Your task to perform on an android device: toggle data saver in the chrome app Image 0: 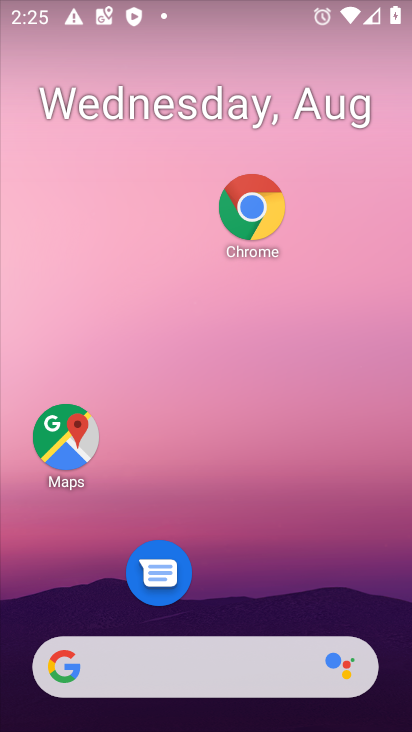
Step 0: drag from (225, 602) to (322, 123)
Your task to perform on an android device: toggle data saver in the chrome app Image 1: 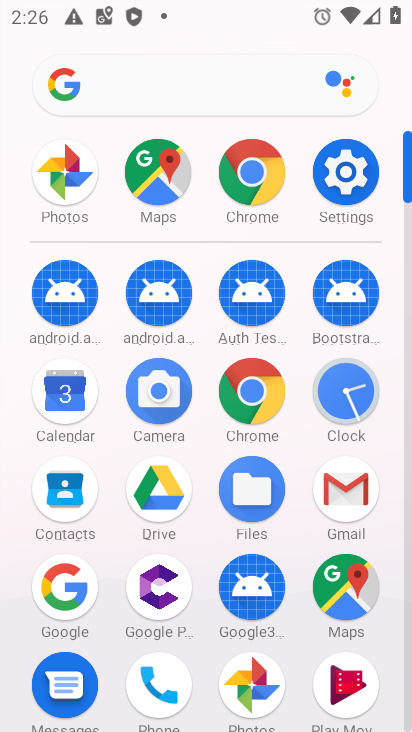
Step 1: click (248, 182)
Your task to perform on an android device: toggle data saver in the chrome app Image 2: 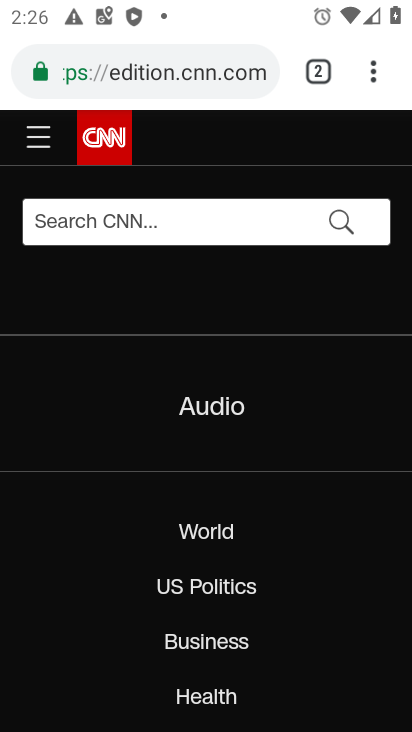
Step 2: click (366, 68)
Your task to perform on an android device: toggle data saver in the chrome app Image 3: 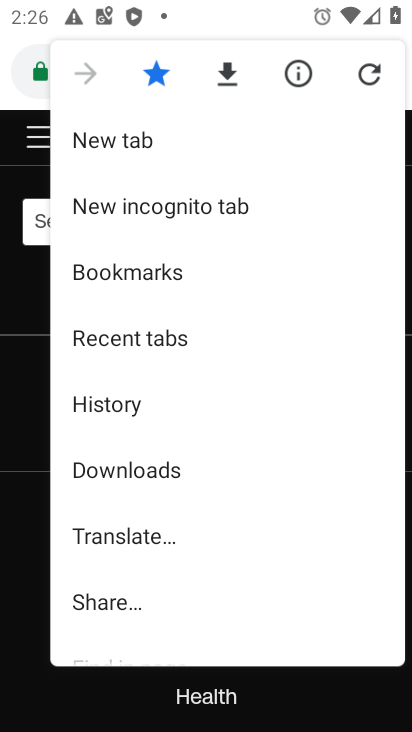
Step 3: drag from (139, 531) to (145, 209)
Your task to perform on an android device: toggle data saver in the chrome app Image 4: 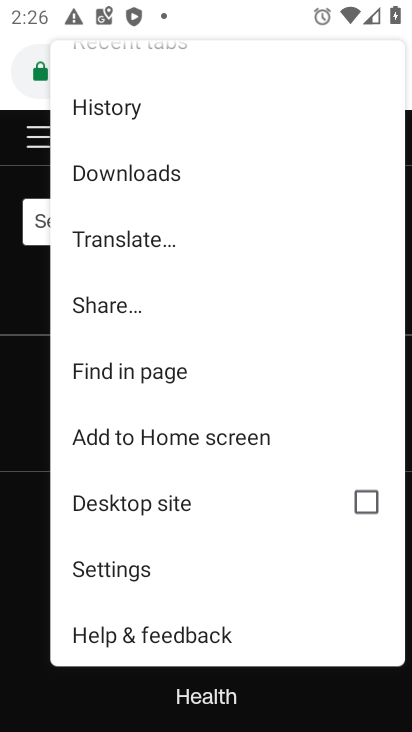
Step 4: click (162, 561)
Your task to perform on an android device: toggle data saver in the chrome app Image 5: 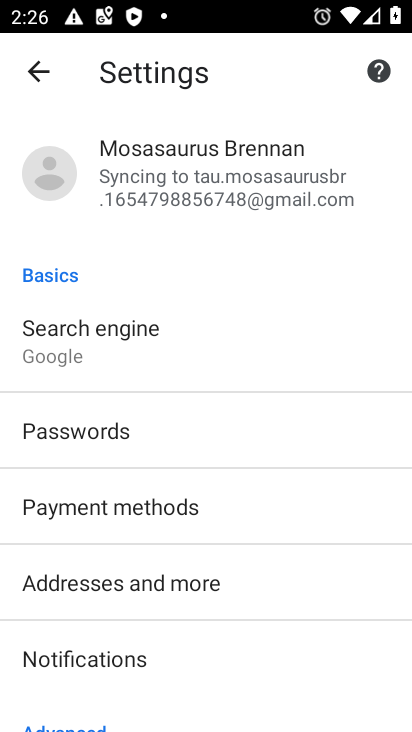
Step 5: drag from (175, 594) to (175, 314)
Your task to perform on an android device: toggle data saver in the chrome app Image 6: 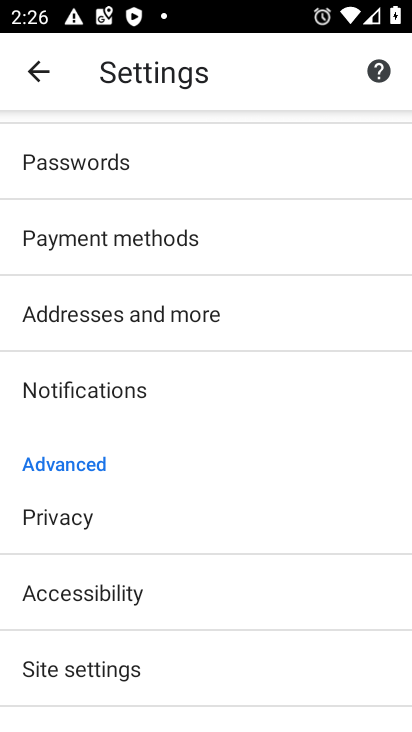
Step 6: drag from (225, 485) to (202, 296)
Your task to perform on an android device: toggle data saver in the chrome app Image 7: 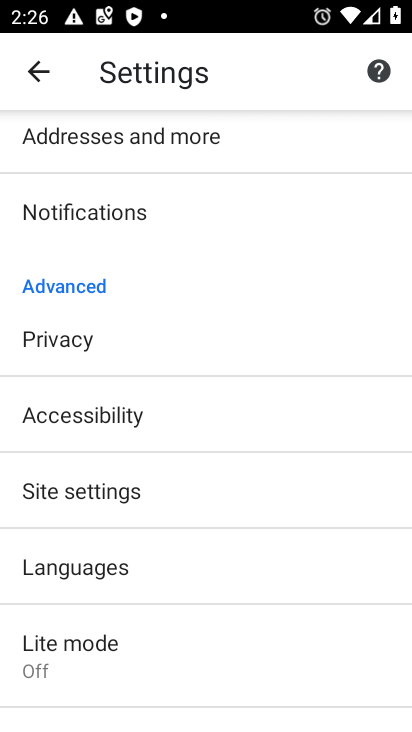
Step 7: drag from (176, 596) to (181, 338)
Your task to perform on an android device: toggle data saver in the chrome app Image 8: 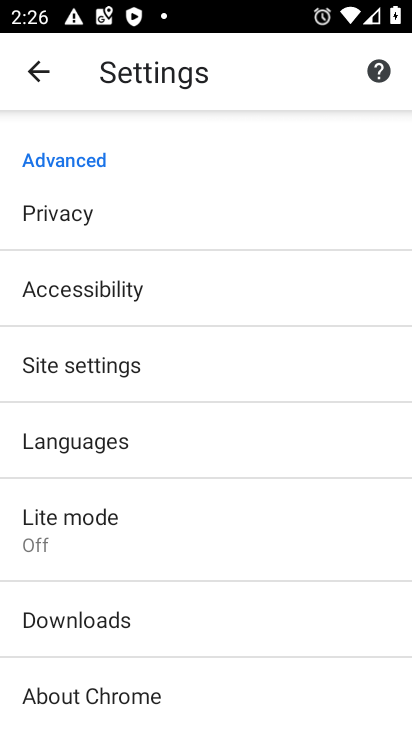
Step 8: click (165, 518)
Your task to perform on an android device: toggle data saver in the chrome app Image 9: 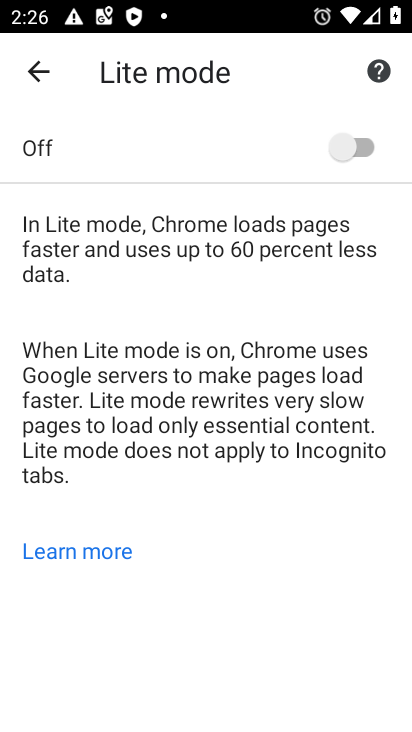
Step 9: click (380, 144)
Your task to perform on an android device: toggle data saver in the chrome app Image 10: 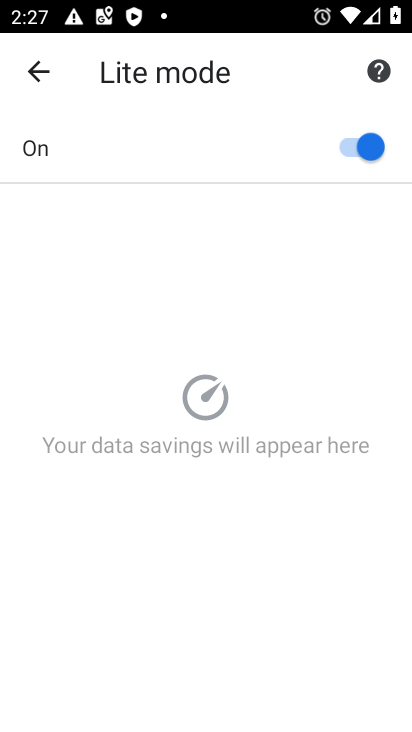
Step 10: task complete